Your task to perform on an android device: delete location history Image 0: 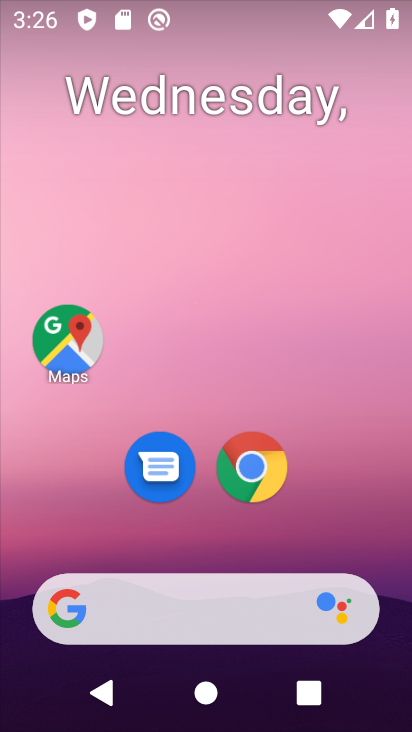
Step 0: drag from (318, 449) to (261, 44)
Your task to perform on an android device: delete location history Image 1: 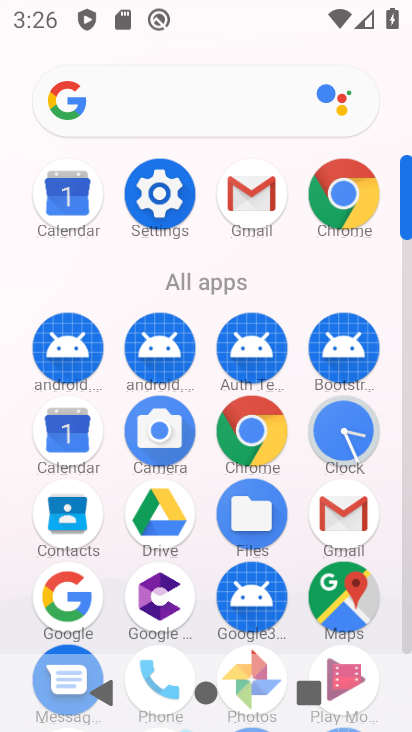
Step 1: click (163, 188)
Your task to perform on an android device: delete location history Image 2: 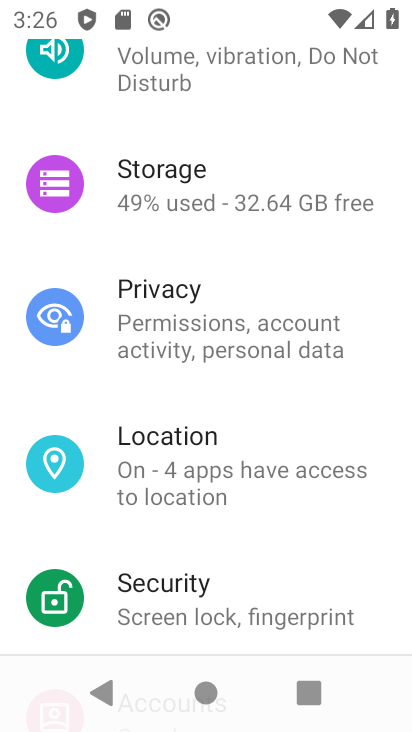
Step 2: click (198, 459)
Your task to perform on an android device: delete location history Image 3: 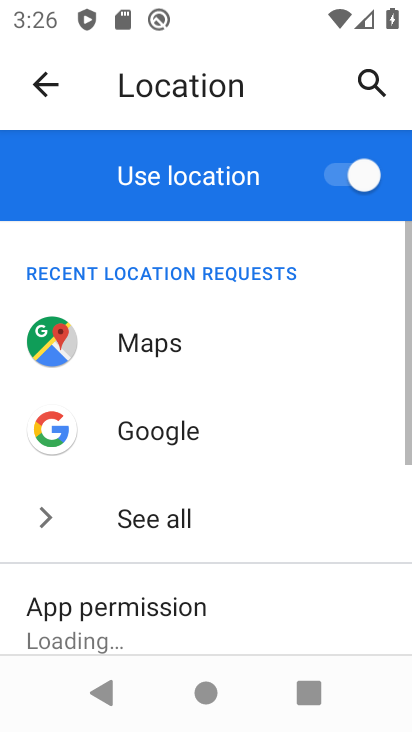
Step 3: drag from (237, 558) to (239, 76)
Your task to perform on an android device: delete location history Image 4: 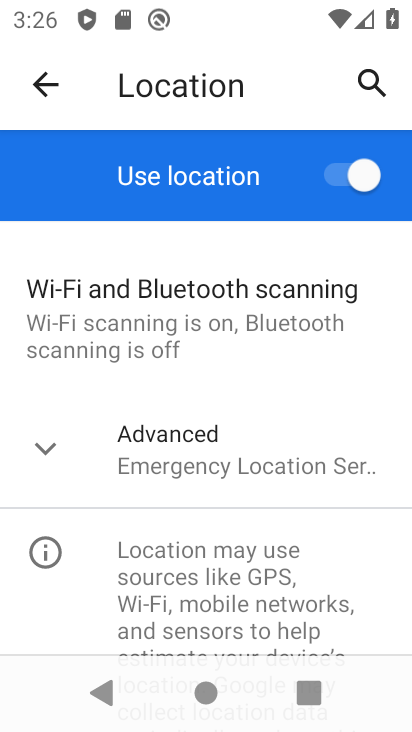
Step 4: click (189, 422)
Your task to perform on an android device: delete location history Image 5: 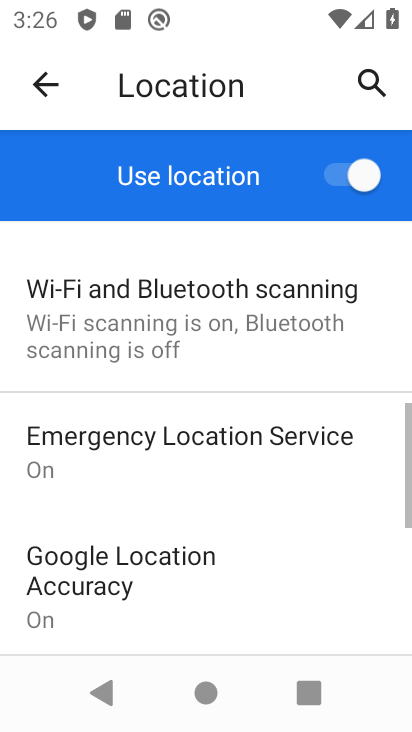
Step 5: drag from (227, 593) to (254, 212)
Your task to perform on an android device: delete location history Image 6: 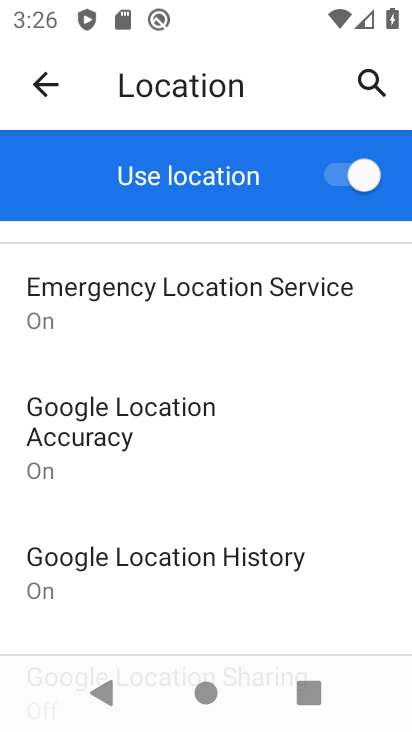
Step 6: click (255, 556)
Your task to perform on an android device: delete location history Image 7: 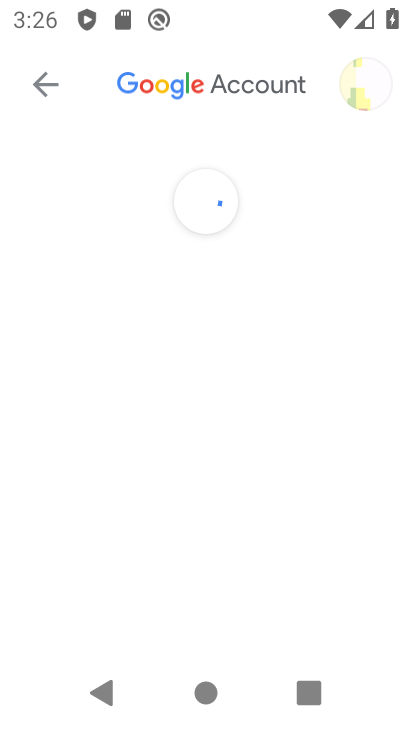
Step 7: drag from (233, 597) to (237, 171)
Your task to perform on an android device: delete location history Image 8: 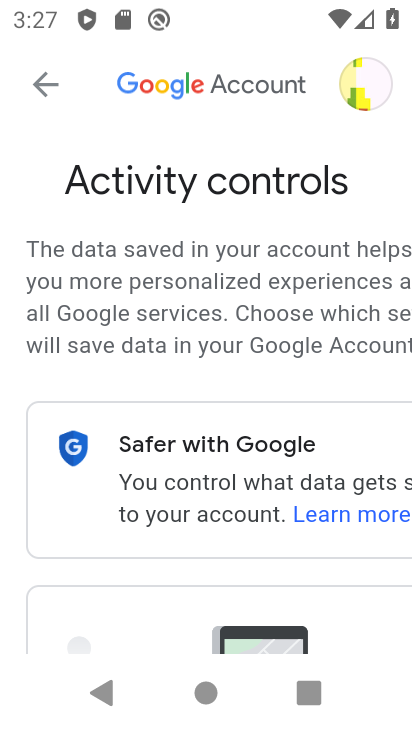
Step 8: drag from (275, 338) to (283, 149)
Your task to perform on an android device: delete location history Image 9: 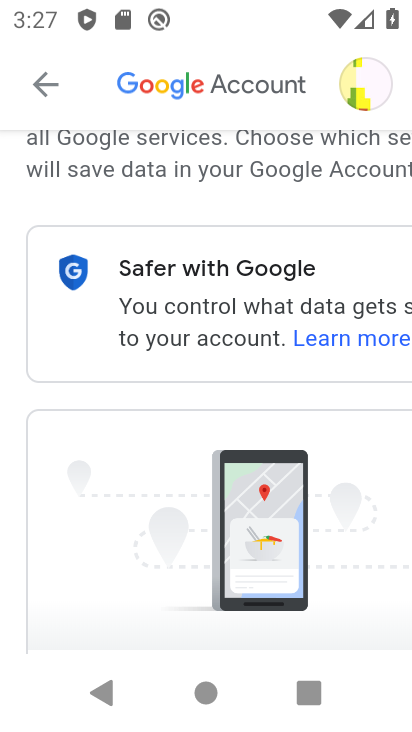
Step 9: drag from (259, 443) to (264, 116)
Your task to perform on an android device: delete location history Image 10: 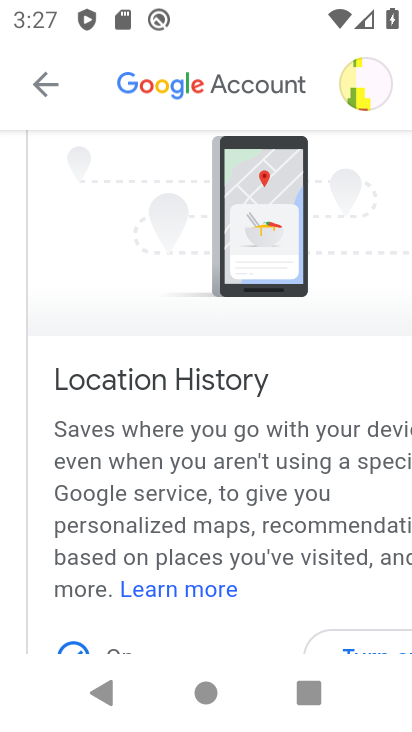
Step 10: drag from (164, 543) to (213, 131)
Your task to perform on an android device: delete location history Image 11: 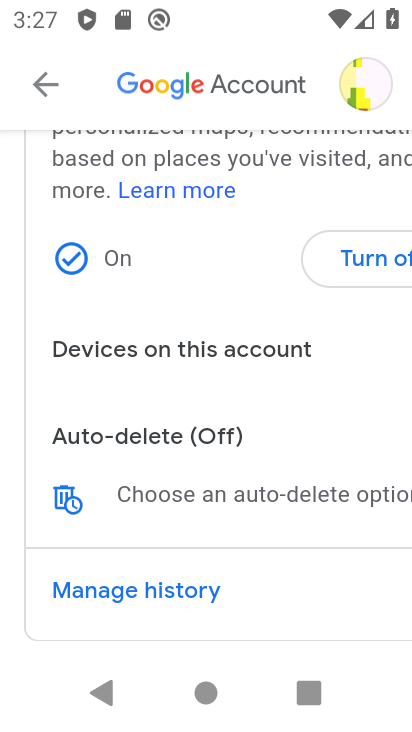
Step 11: click (76, 497)
Your task to perform on an android device: delete location history Image 12: 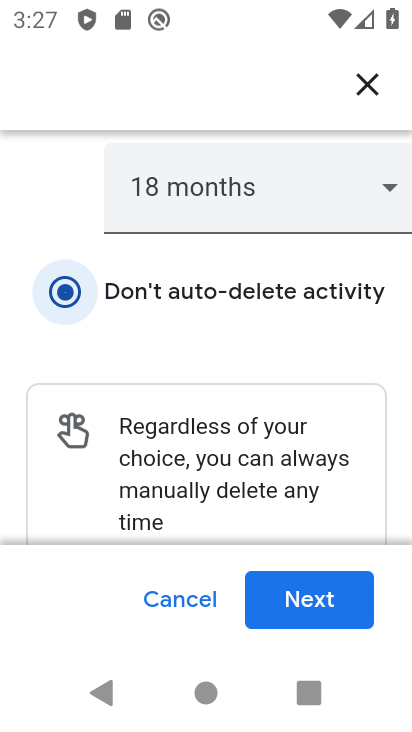
Step 12: click (321, 584)
Your task to perform on an android device: delete location history Image 13: 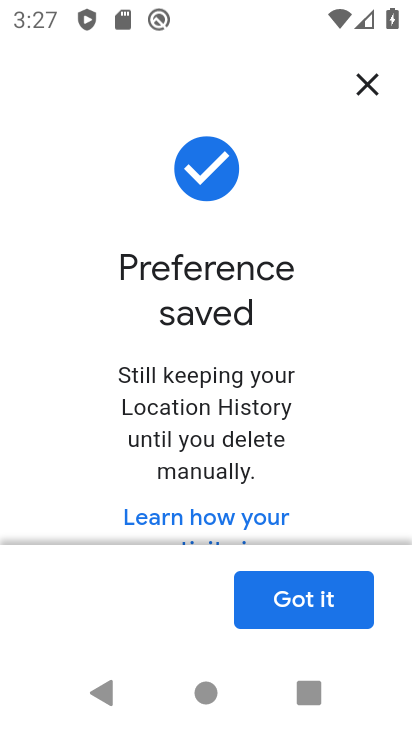
Step 13: click (313, 594)
Your task to perform on an android device: delete location history Image 14: 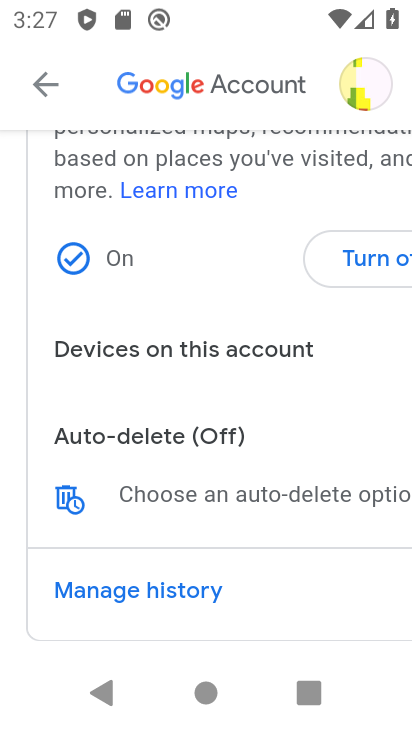
Step 14: task complete